Your task to perform on an android device: open app "Google Sheets" (install if not already installed) Image 0: 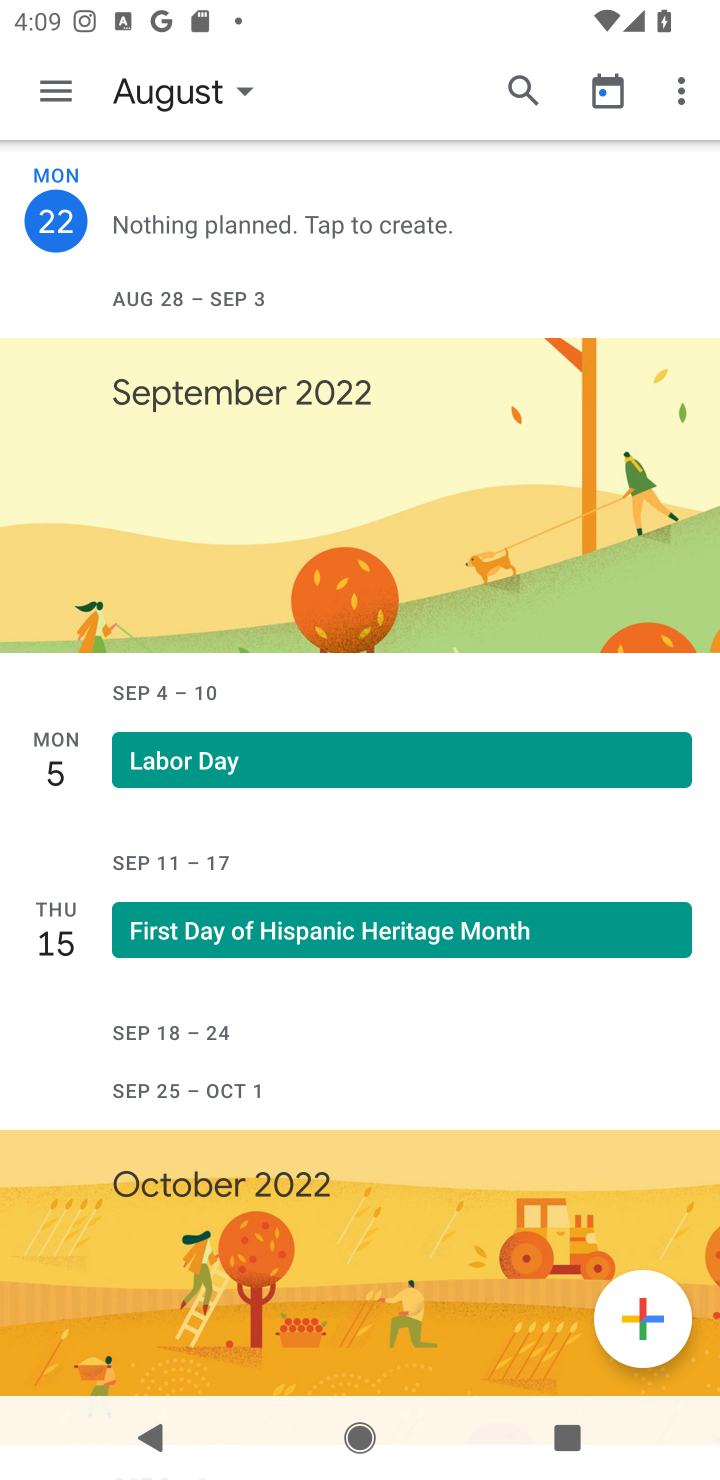
Step 0: press home button
Your task to perform on an android device: open app "Google Sheets" (install if not already installed) Image 1: 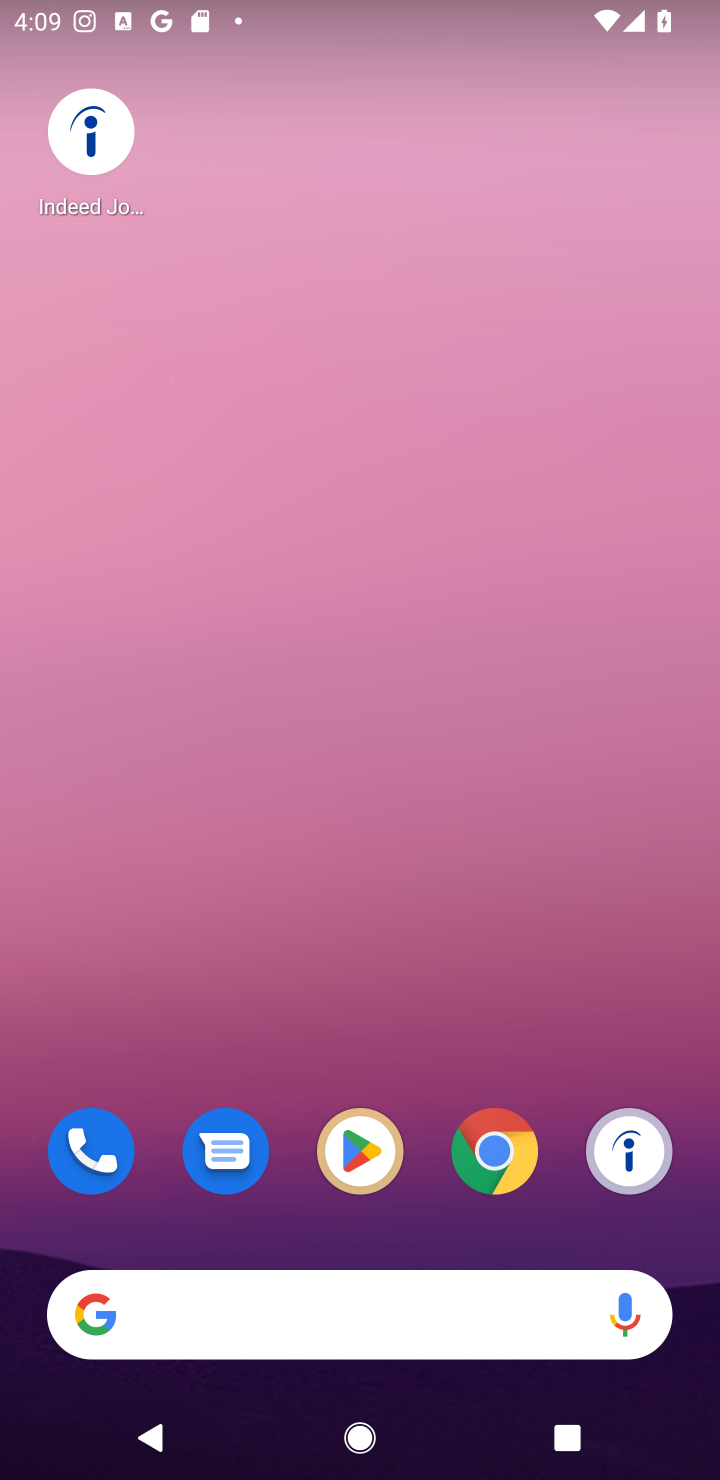
Step 1: click (369, 1154)
Your task to perform on an android device: open app "Google Sheets" (install if not already installed) Image 2: 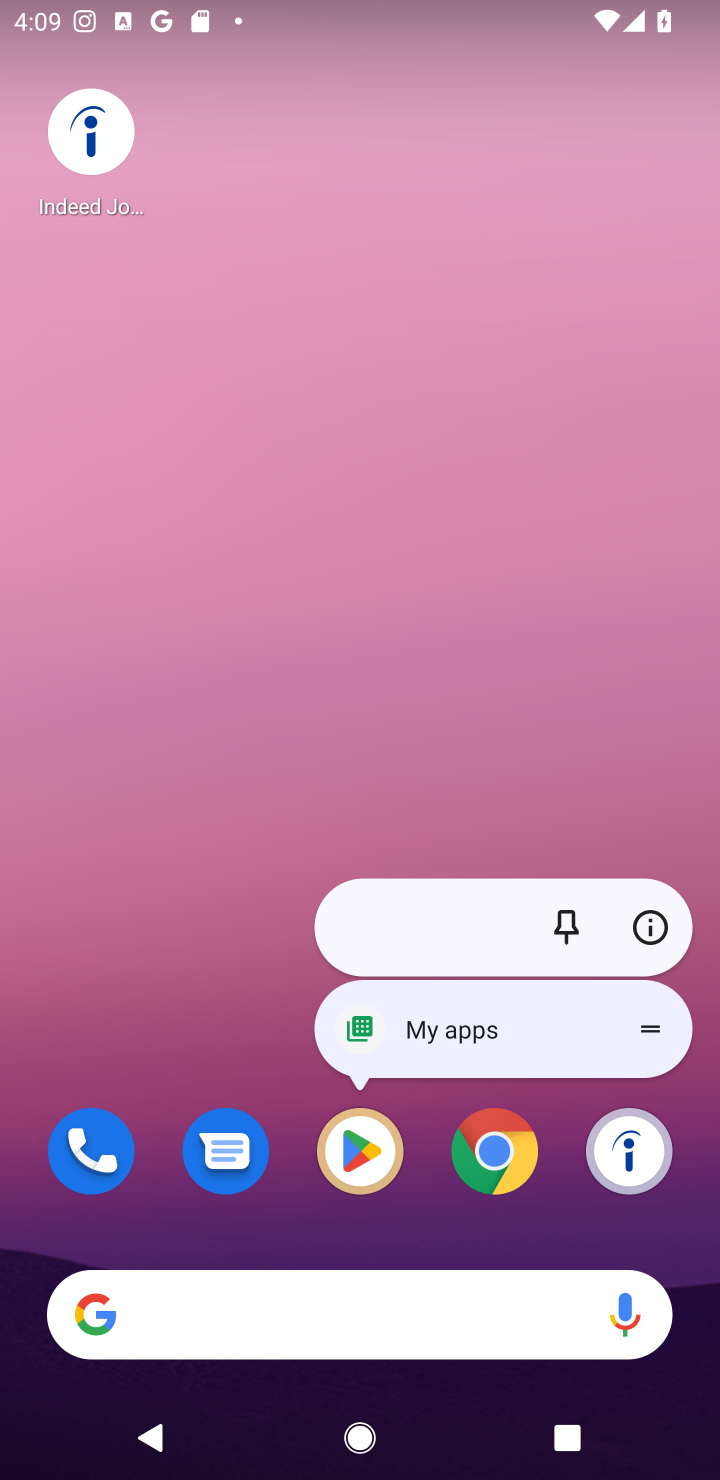
Step 2: click (369, 1158)
Your task to perform on an android device: open app "Google Sheets" (install if not already installed) Image 3: 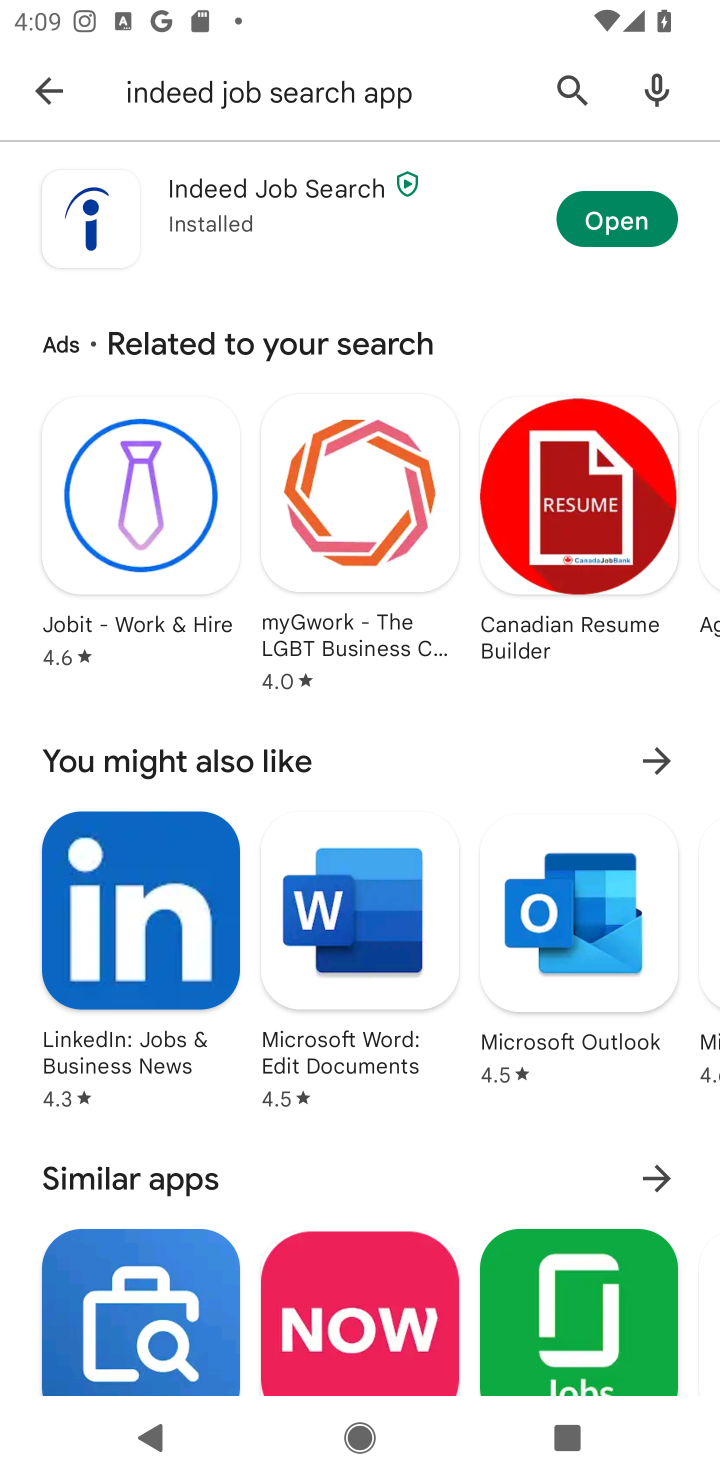
Step 3: click (563, 78)
Your task to perform on an android device: open app "Google Sheets" (install if not already installed) Image 4: 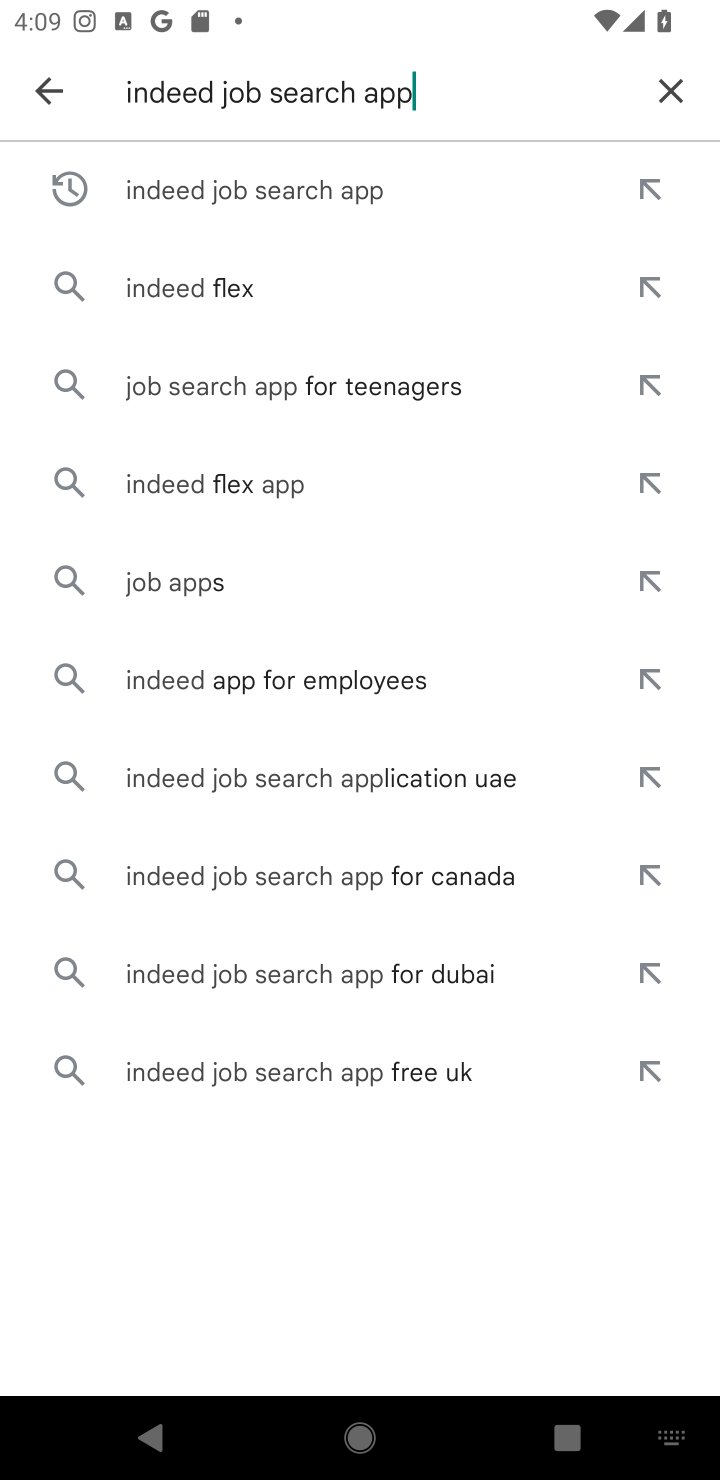
Step 4: click (664, 90)
Your task to perform on an android device: open app "Google Sheets" (install if not already installed) Image 5: 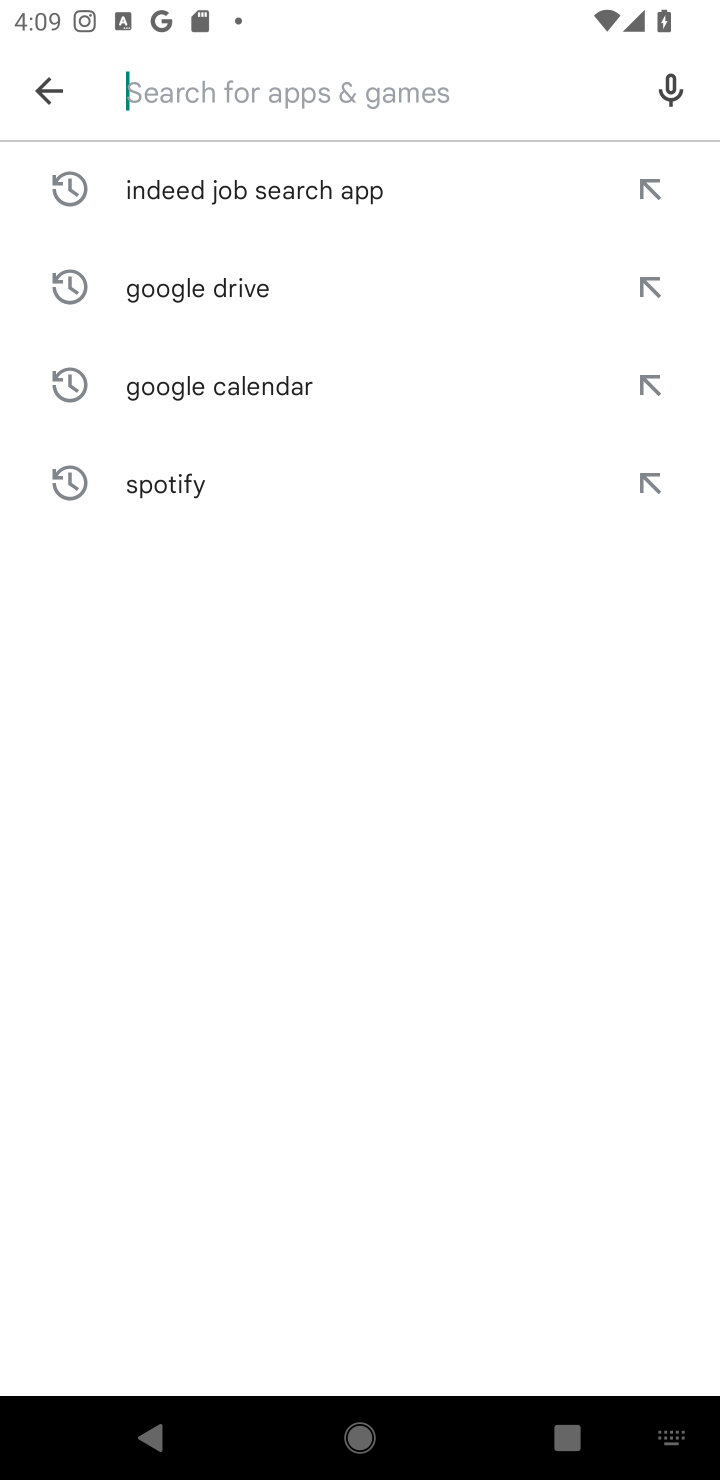
Step 5: type "Google Sheets"
Your task to perform on an android device: open app "Google Sheets" (install if not already installed) Image 6: 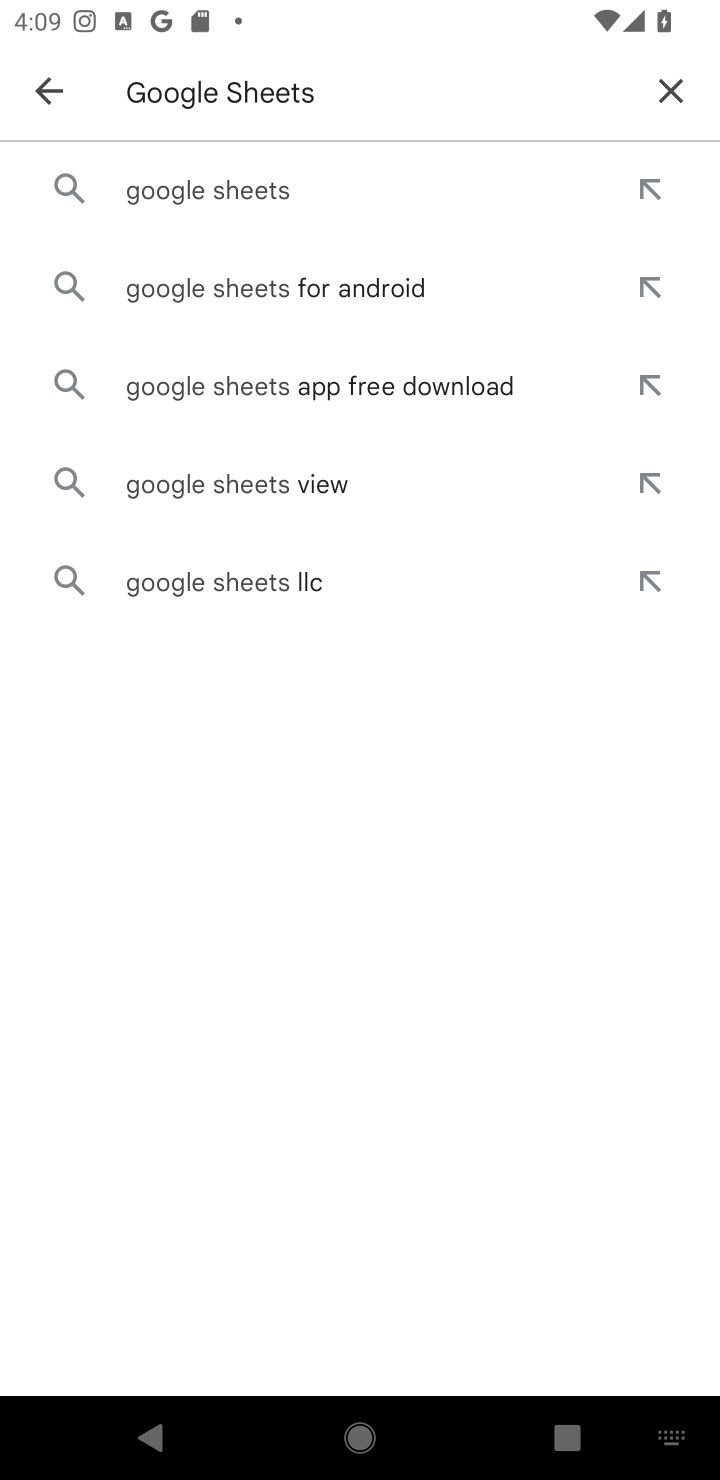
Step 6: click (263, 184)
Your task to perform on an android device: open app "Google Sheets" (install if not already installed) Image 7: 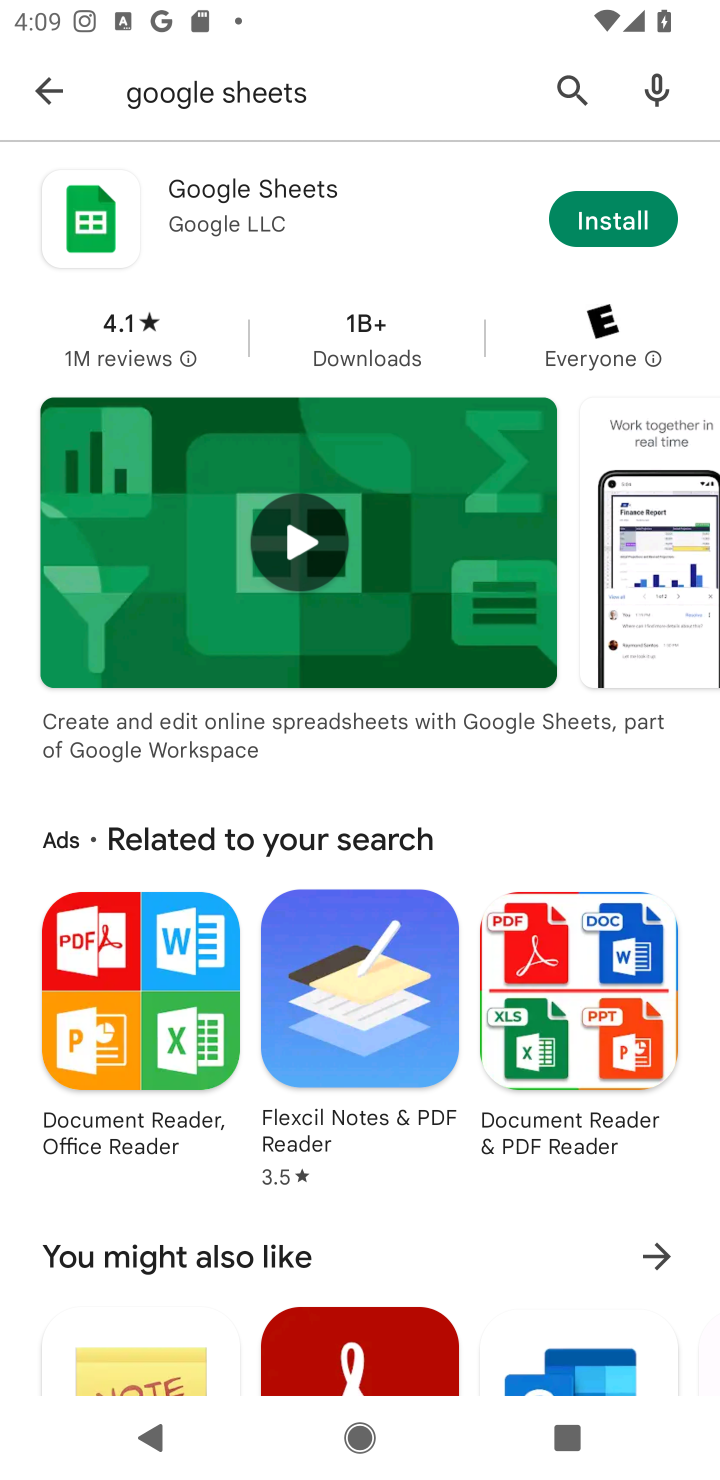
Step 7: click (628, 228)
Your task to perform on an android device: open app "Google Sheets" (install if not already installed) Image 8: 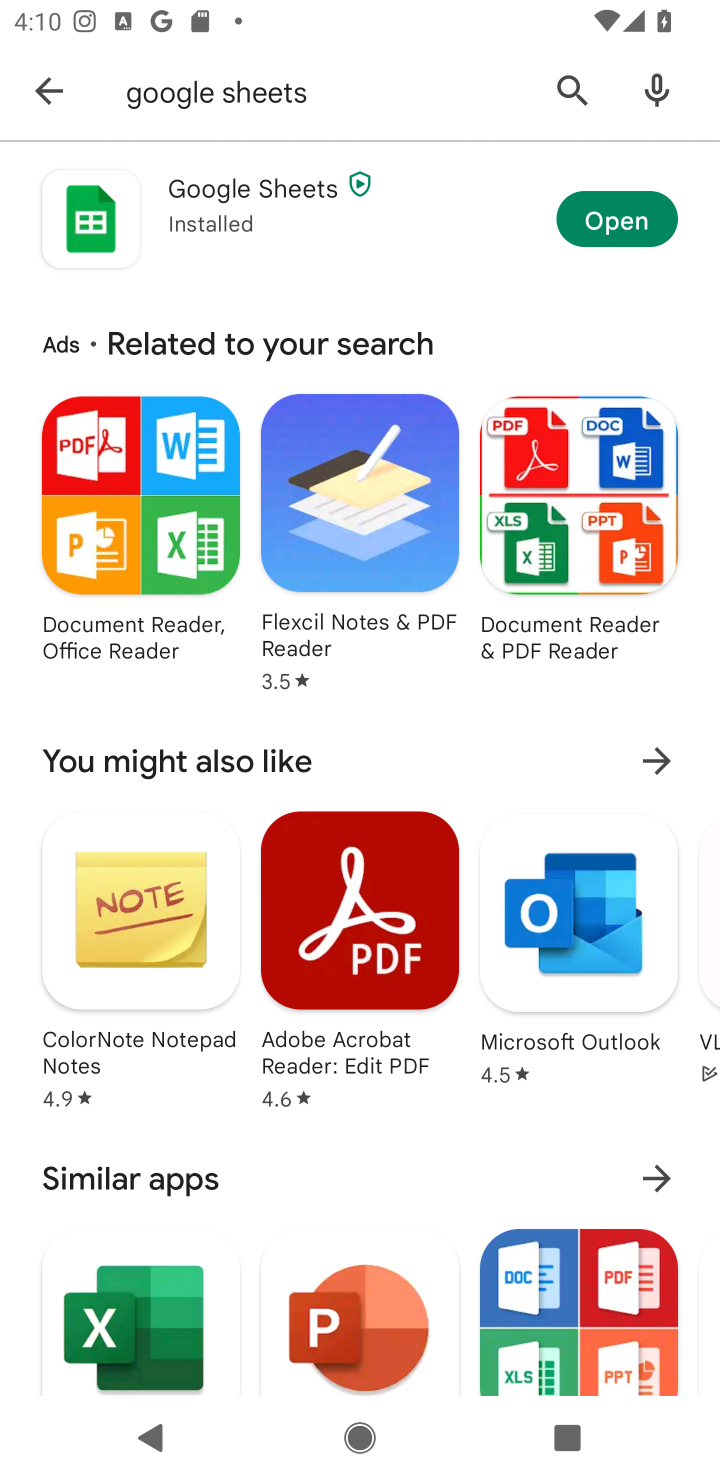
Step 8: click (603, 210)
Your task to perform on an android device: open app "Google Sheets" (install if not already installed) Image 9: 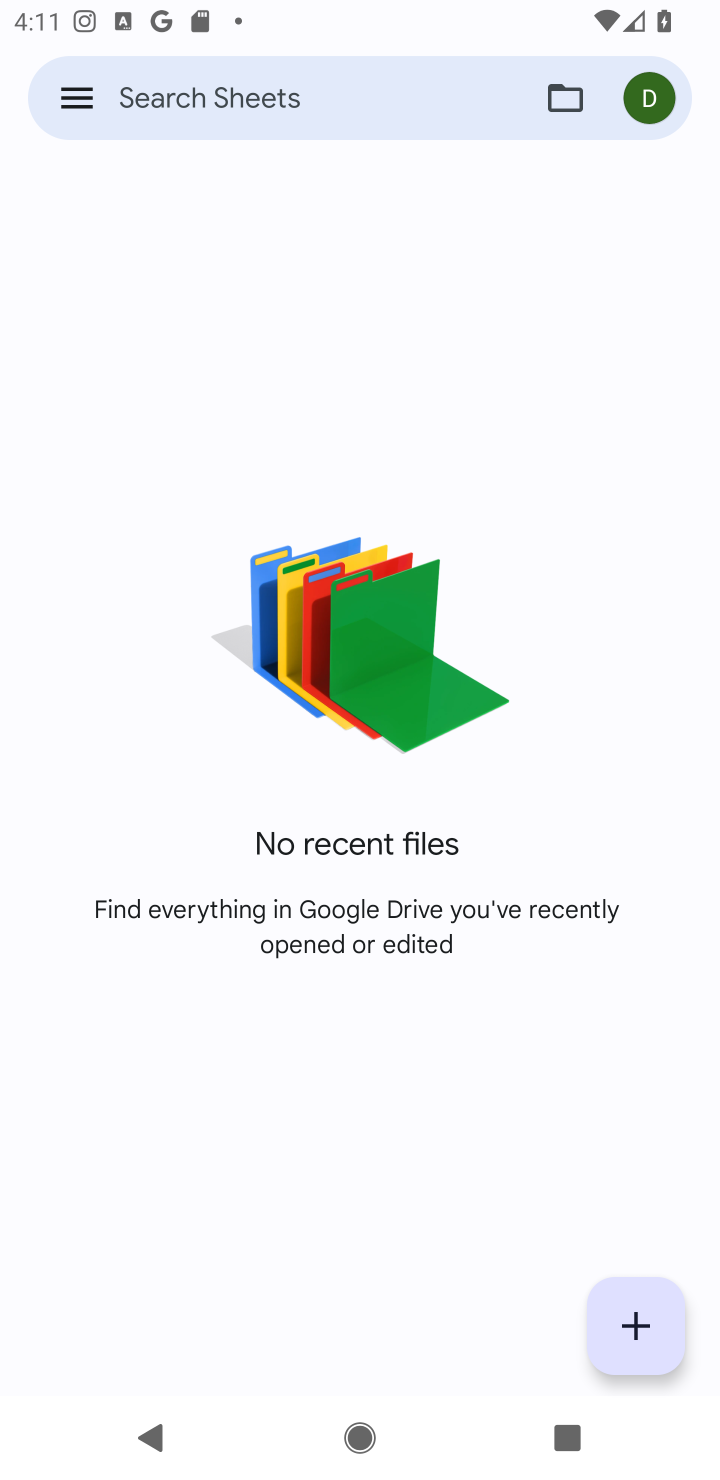
Step 9: task complete